Your task to perform on an android device: open app "Expedia: Hotels, Flights & Car" (install if not already installed) Image 0: 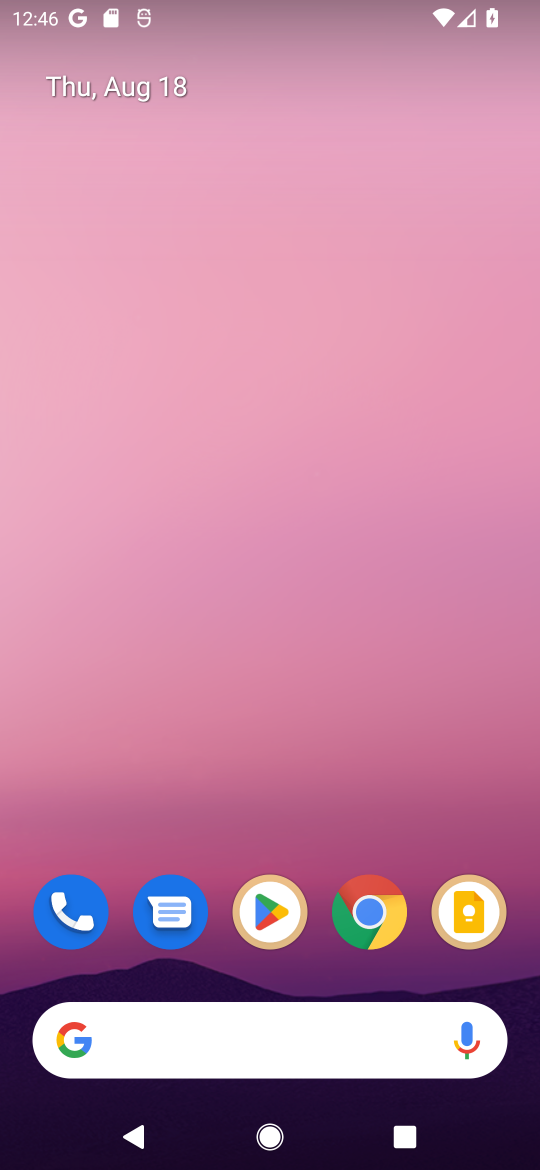
Step 0: click (275, 920)
Your task to perform on an android device: open app "Expedia: Hotels, Flights & Car" (install if not already installed) Image 1: 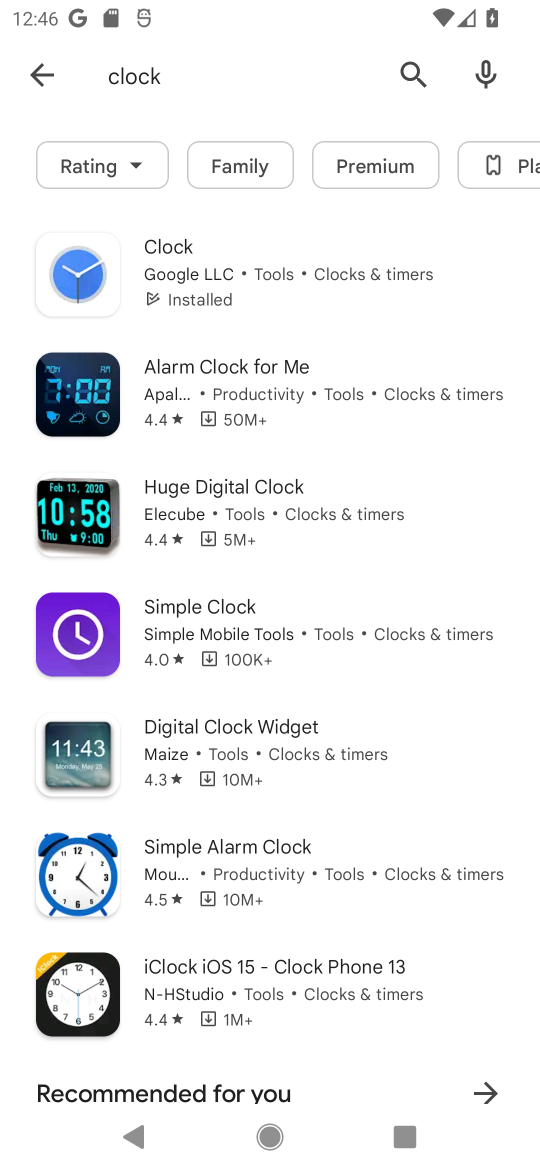
Step 1: click (414, 71)
Your task to perform on an android device: open app "Expedia: Hotels, Flights & Car" (install if not already installed) Image 2: 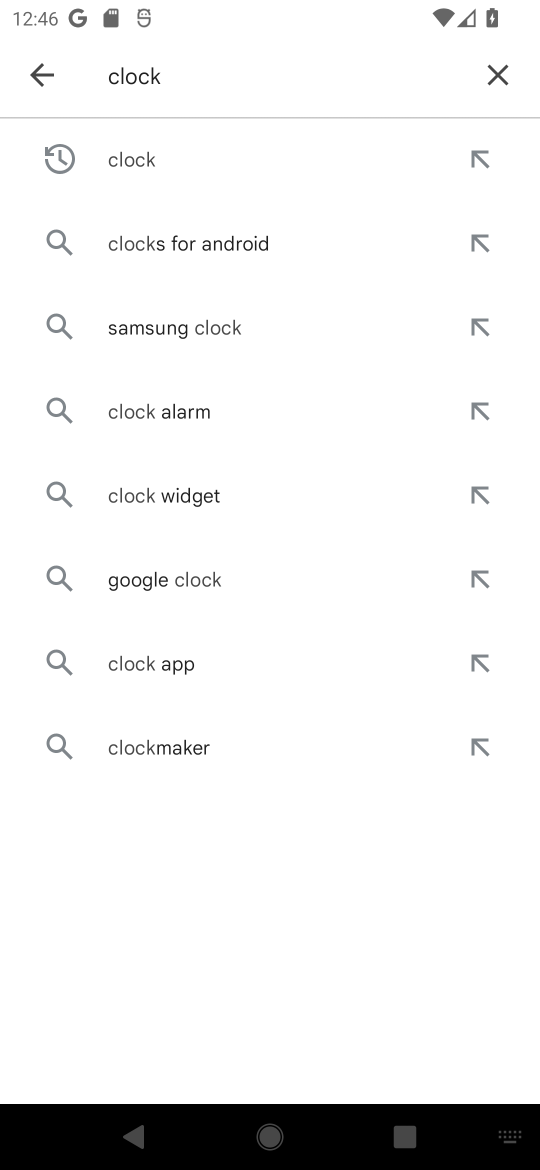
Step 2: click (487, 61)
Your task to perform on an android device: open app "Expedia: Hotels, Flights & Car" (install if not already installed) Image 3: 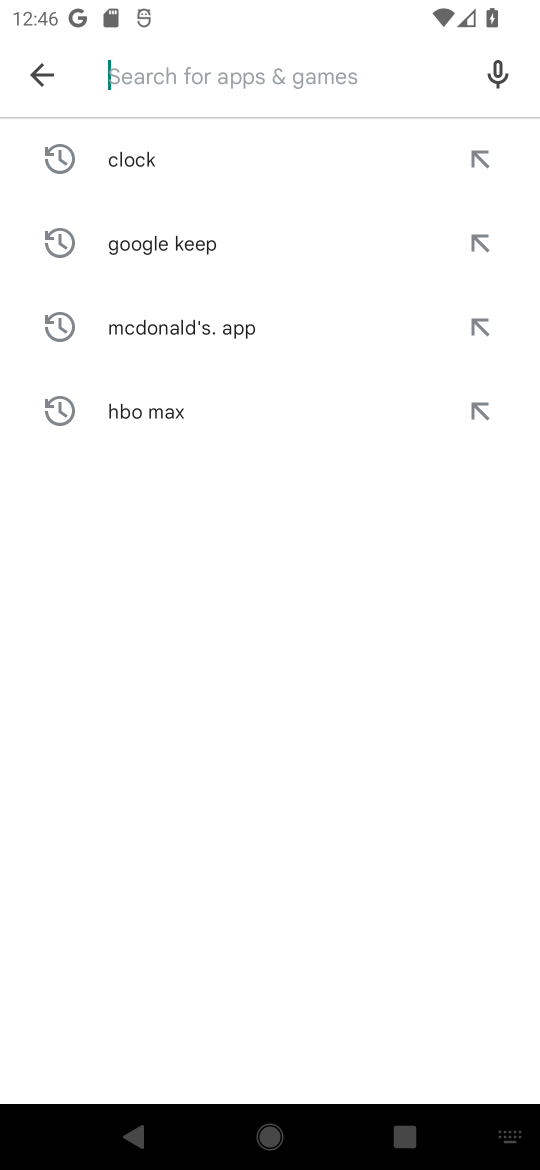
Step 3: click (161, 88)
Your task to perform on an android device: open app "Expedia: Hotels, Flights & Car" (install if not already installed) Image 4: 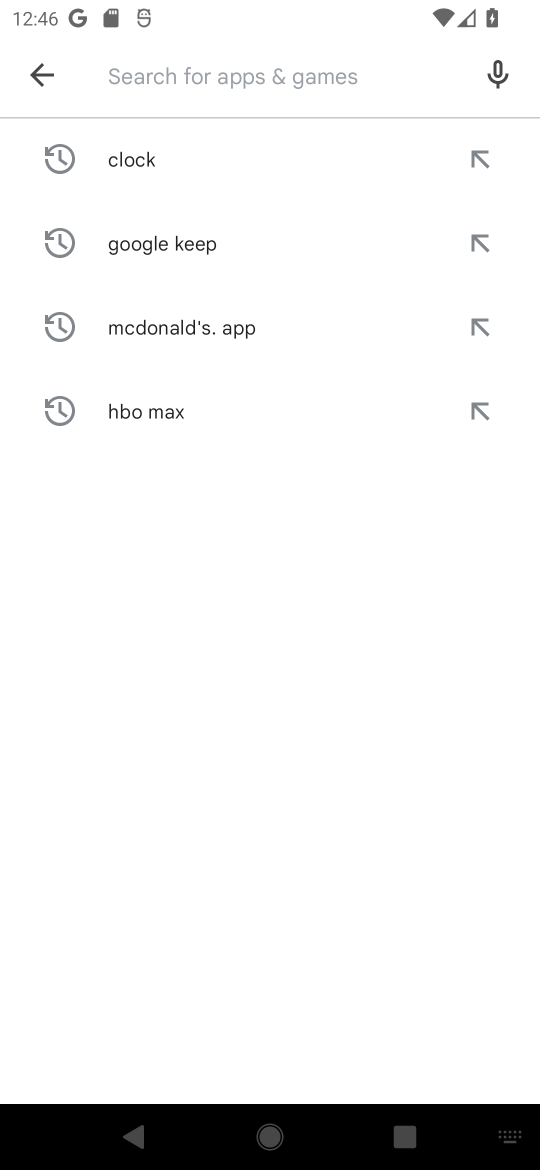
Step 4: type "expedia"
Your task to perform on an android device: open app "Expedia: Hotels, Flights & Car" (install if not already installed) Image 5: 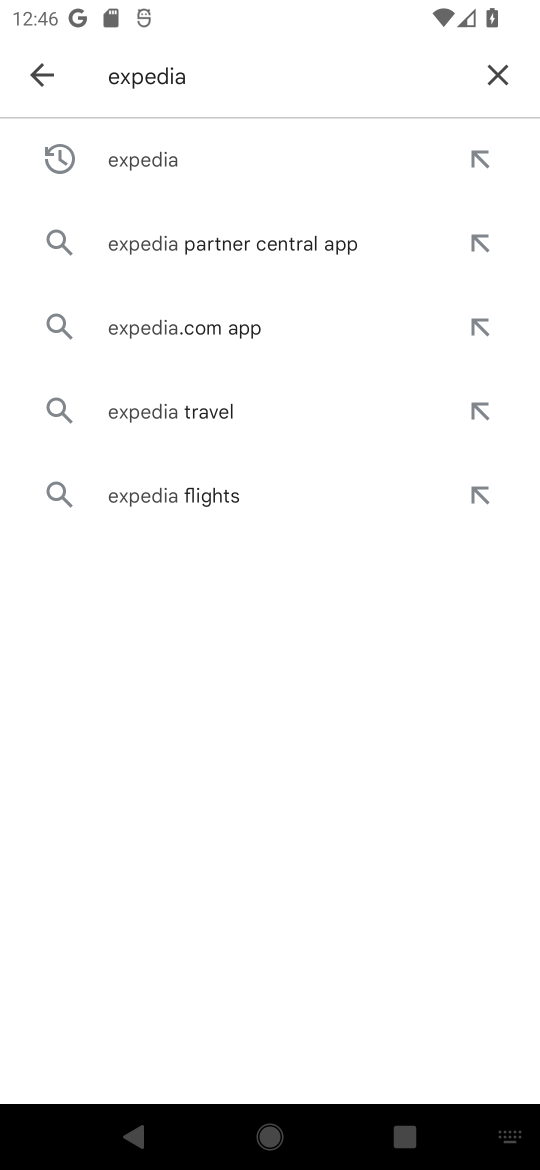
Step 5: click (221, 157)
Your task to perform on an android device: open app "Expedia: Hotels, Flights & Car" (install if not already installed) Image 6: 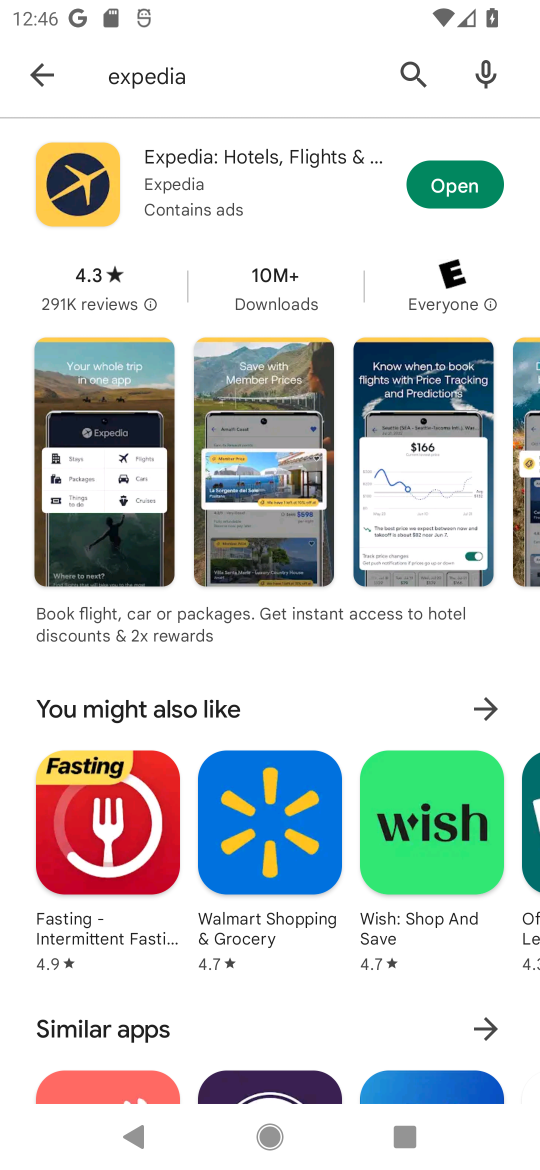
Step 6: click (449, 192)
Your task to perform on an android device: open app "Expedia: Hotels, Flights & Car" (install if not already installed) Image 7: 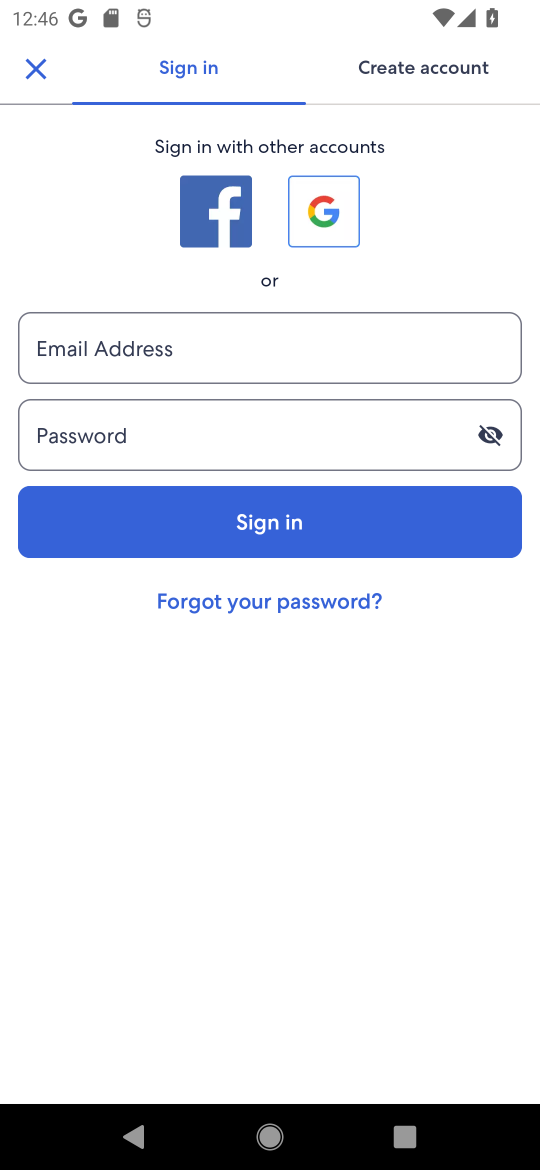
Step 7: task complete